Your task to perform on an android device: Open Chrome and go to settings Image 0: 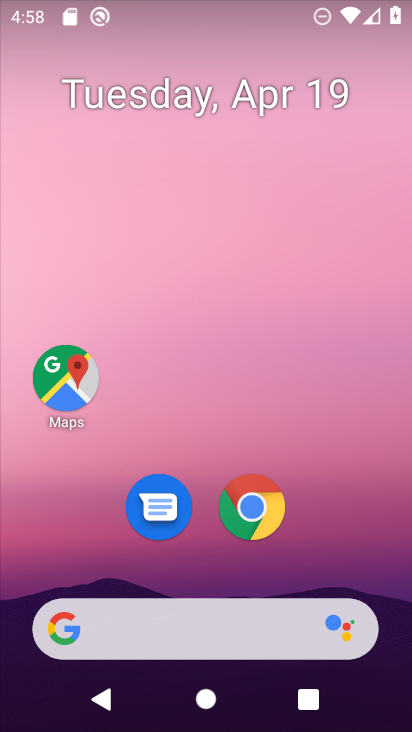
Step 0: click (266, 504)
Your task to perform on an android device: Open Chrome and go to settings Image 1: 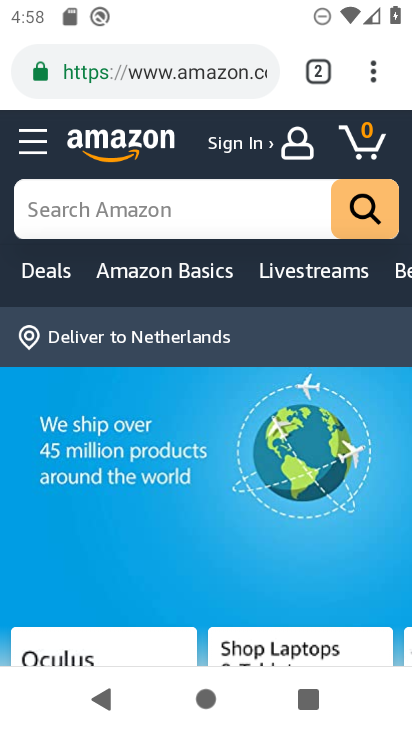
Step 1: click (373, 68)
Your task to perform on an android device: Open Chrome and go to settings Image 2: 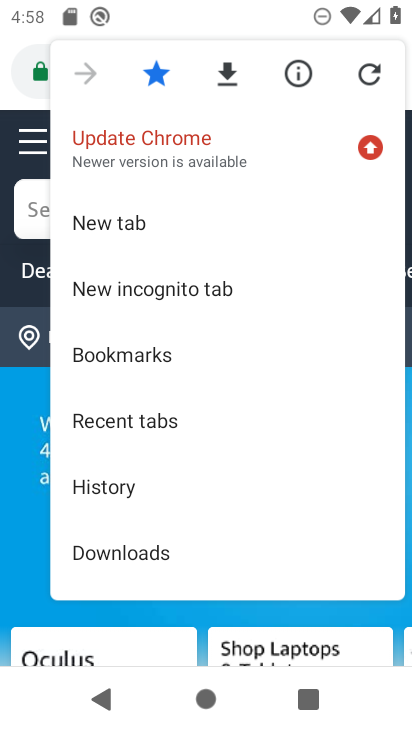
Step 2: drag from (227, 518) to (262, 274)
Your task to perform on an android device: Open Chrome and go to settings Image 3: 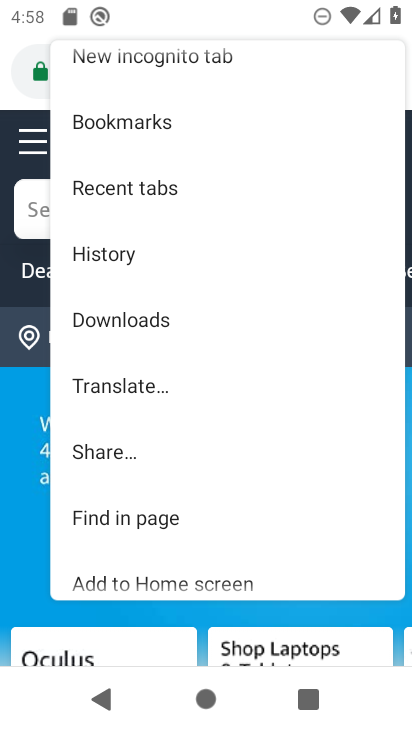
Step 3: drag from (196, 494) to (203, 414)
Your task to perform on an android device: Open Chrome and go to settings Image 4: 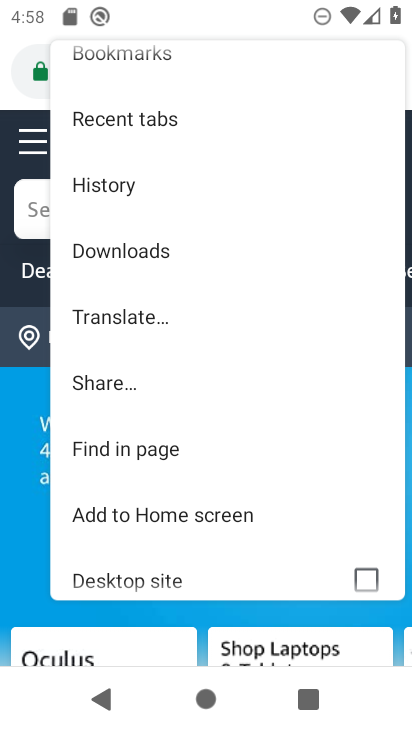
Step 4: drag from (180, 530) to (191, 452)
Your task to perform on an android device: Open Chrome and go to settings Image 5: 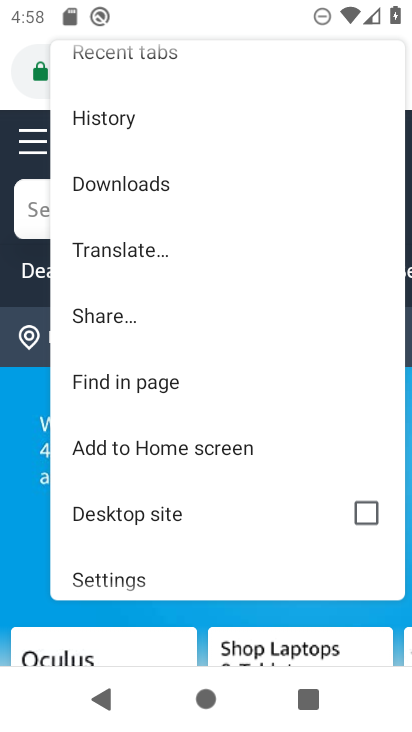
Step 5: click (166, 564)
Your task to perform on an android device: Open Chrome and go to settings Image 6: 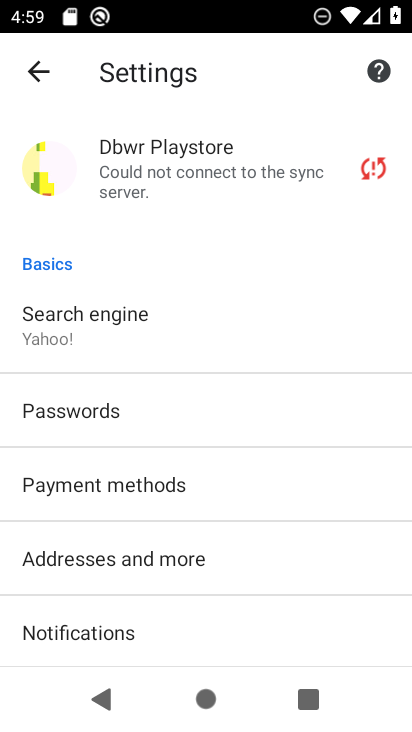
Step 6: task complete